Your task to perform on an android device: clear history in the chrome app Image 0: 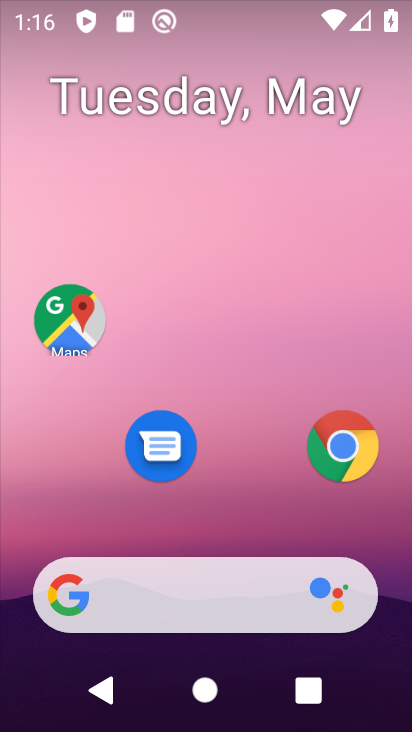
Step 0: click (315, 455)
Your task to perform on an android device: clear history in the chrome app Image 1: 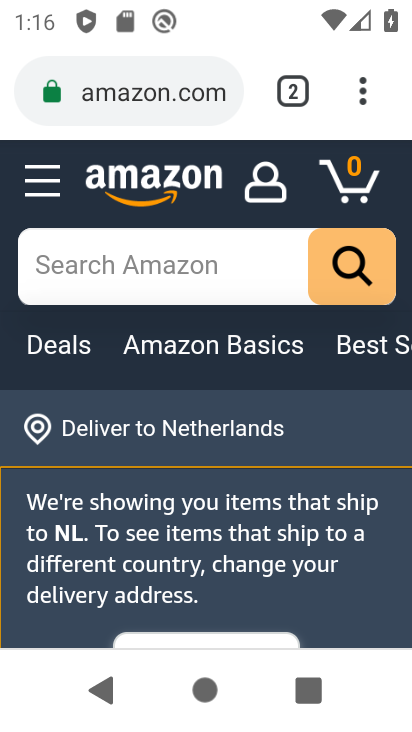
Step 1: click (350, 109)
Your task to perform on an android device: clear history in the chrome app Image 2: 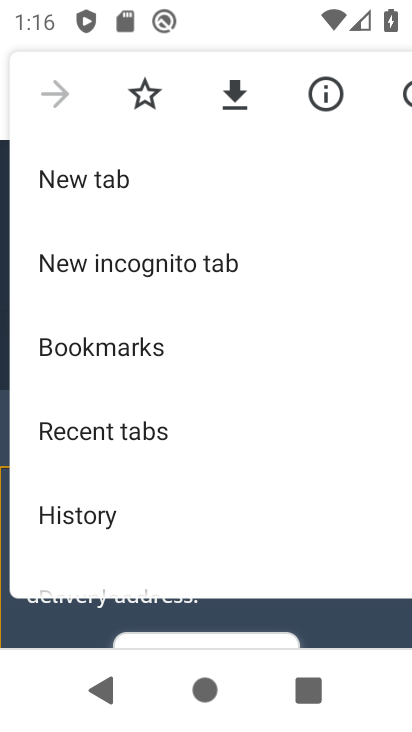
Step 2: click (98, 497)
Your task to perform on an android device: clear history in the chrome app Image 3: 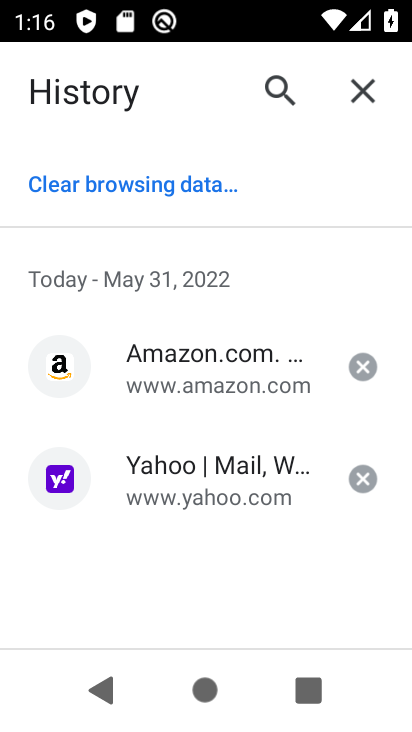
Step 3: click (73, 195)
Your task to perform on an android device: clear history in the chrome app Image 4: 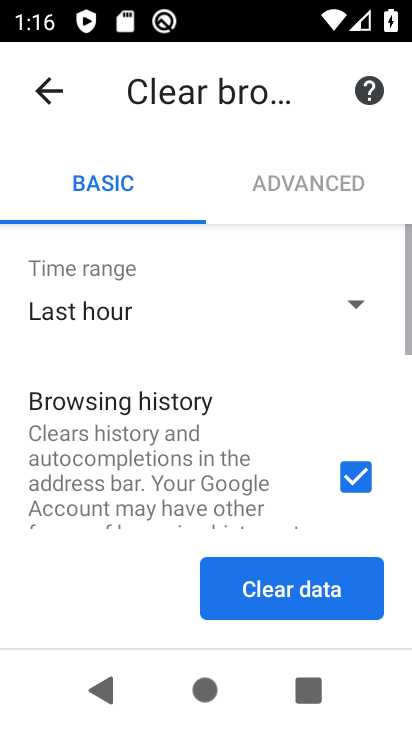
Step 4: click (307, 585)
Your task to perform on an android device: clear history in the chrome app Image 5: 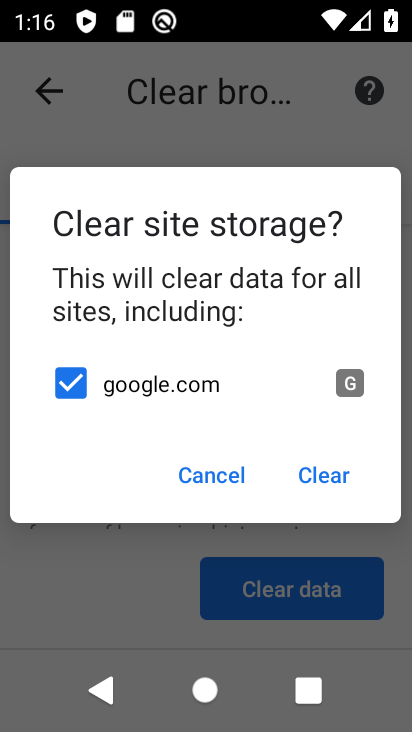
Step 5: click (331, 489)
Your task to perform on an android device: clear history in the chrome app Image 6: 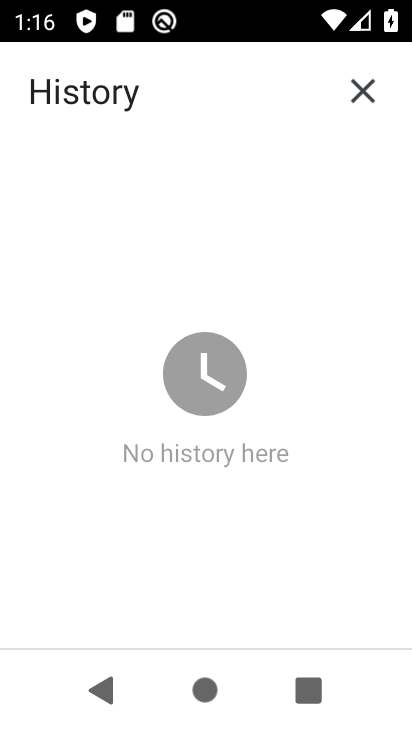
Step 6: task complete